Your task to perform on an android device: toggle wifi Image 0: 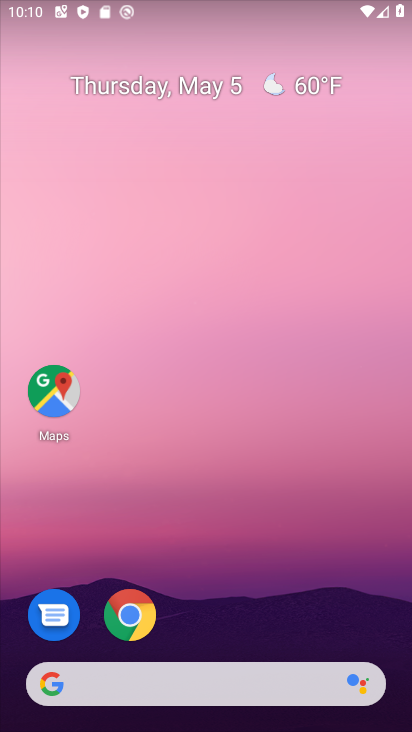
Step 0: drag from (222, 606) to (207, 108)
Your task to perform on an android device: toggle wifi Image 1: 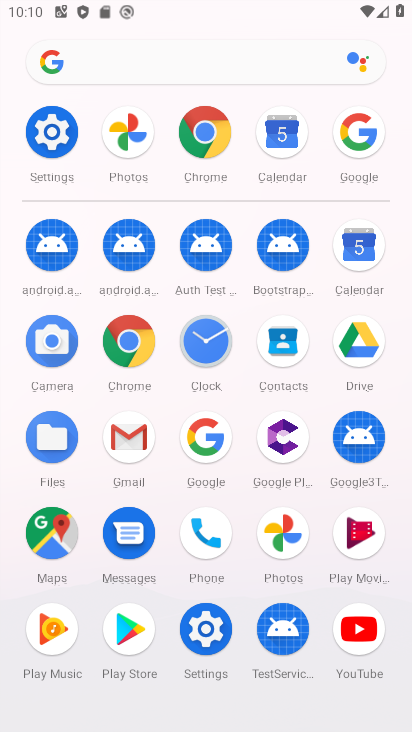
Step 1: click (53, 131)
Your task to perform on an android device: toggle wifi Image 2: 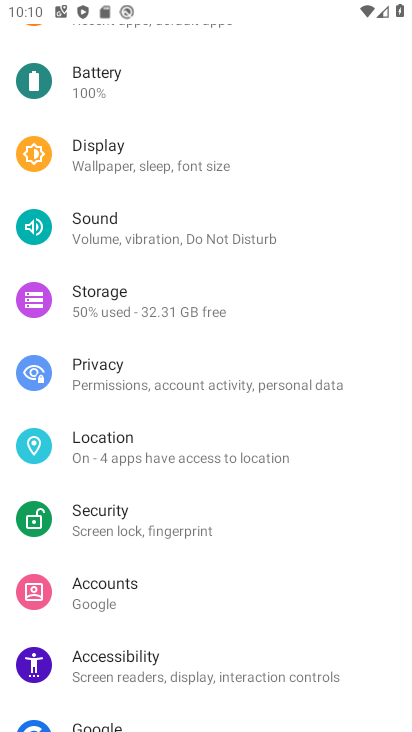
Step 2: drag from (166, 115) to (207, 433)
Your task to perform on an android device: toggle wifi Image 3: 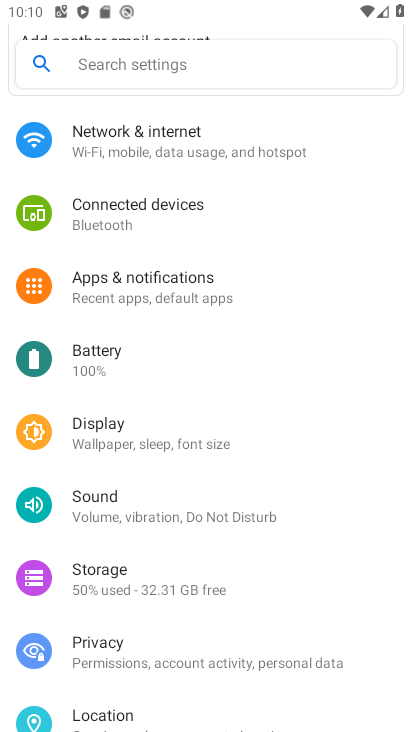
Step 3: click (125, 137)
Your task to perform on an android device: toggle wifi Image 4: 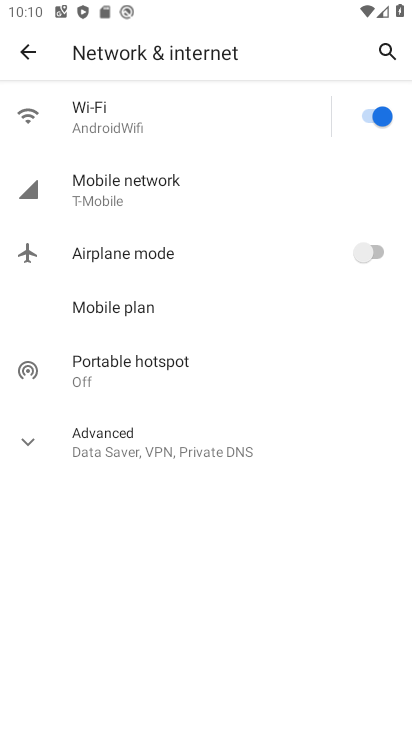
Step 4: click (368, 108)
Your task to perform on an android device: toggle wifi Image 5: 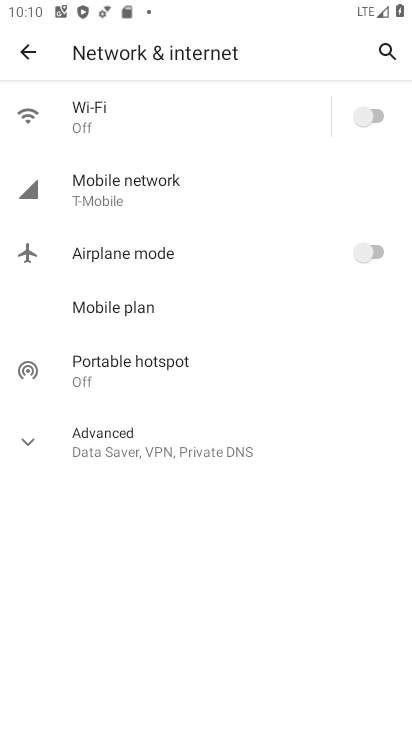
Step 5: task complete